Your task to perform on an android device: Go to calendar. Show me events next week Image 0: 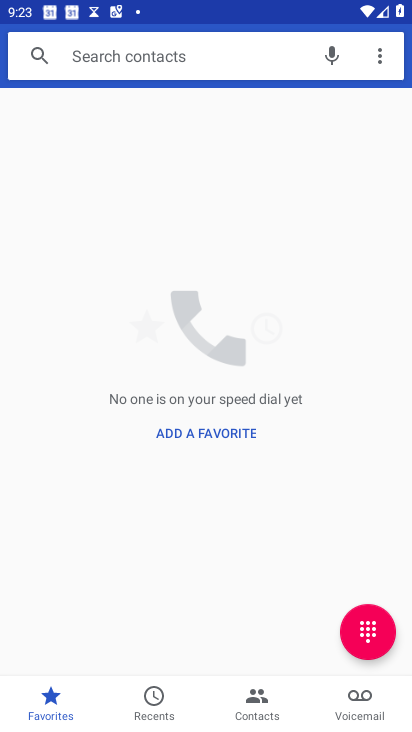
Step 0: press home button
Your task to perform on an android device: Go to calendar. Show me events next week Image 1: 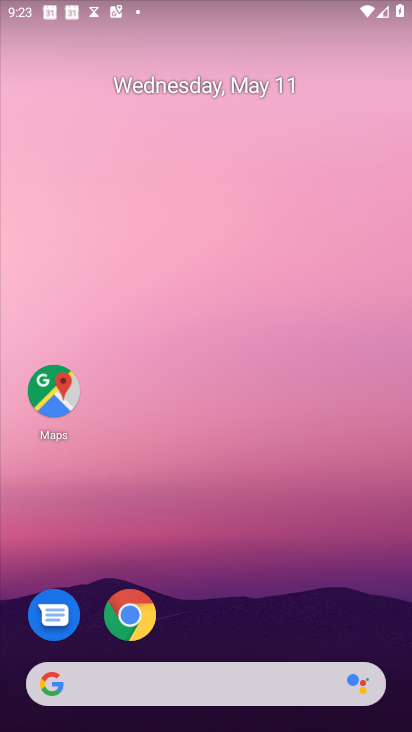
Step 1: drag from (1, 634) to (253, 318)
Your task to perform on an android device: Go to calendar. Show me events next week Image 2: 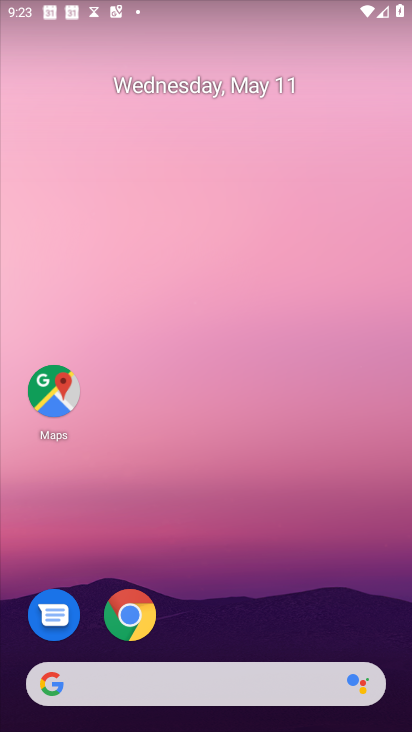
Step 2: drag from (43, 601) to (289, 203)
Your task to perform on an android device: Go to calendar. Show me events next week Image 3: 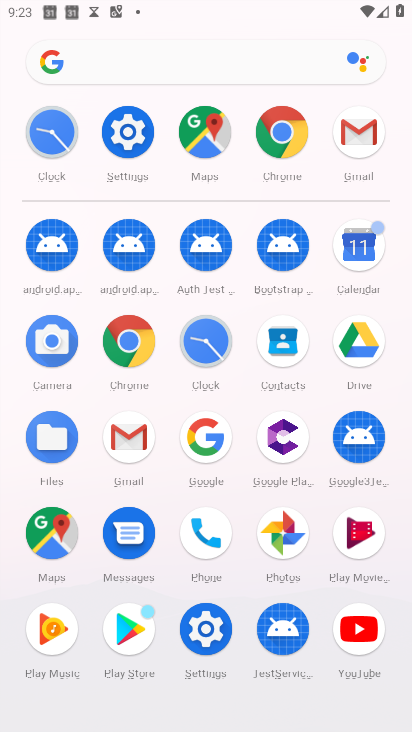
Step 3: click (351, 266)
Your task to perform on an android device: Go to calendar. Show me events next week Image 4: 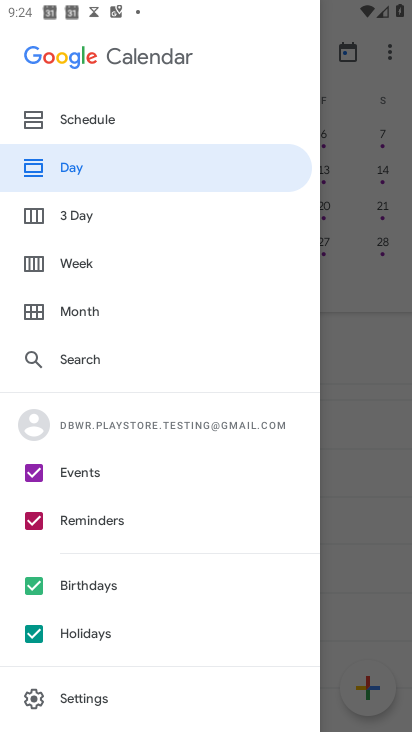
Step 4: task complete